Your task to perform on an android device: turn off airplane mode Image 0: 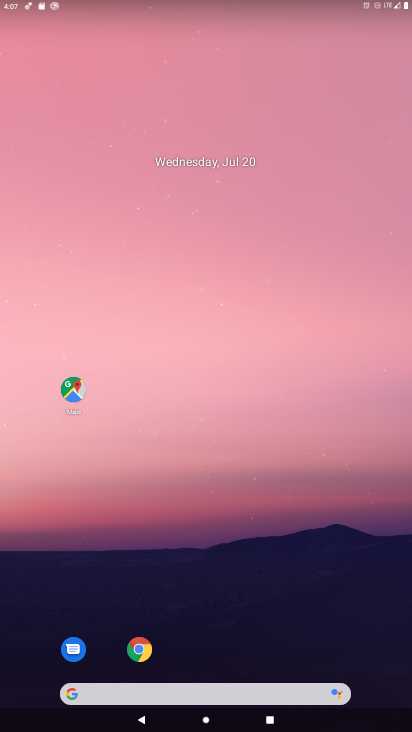
Step 0: drag from (222, 692) to (251, 10)
Your task to perform on an android device: turn off airplane mode Image 1: 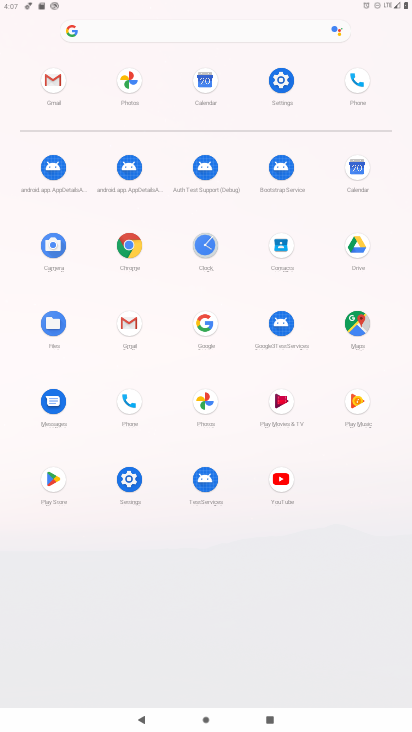
Step 1: click (280, 81)
Your task to perform on an android device: turn off airplane mode Image 2: 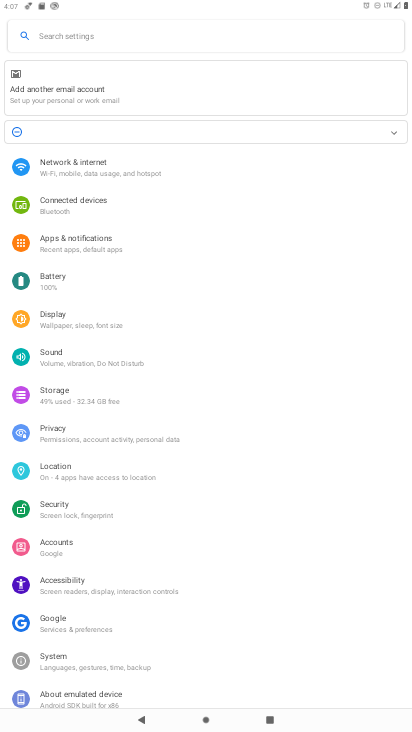
Step 2: click (73, 177)
Your task to perform on an android device: turn off airplane mode Image 3: 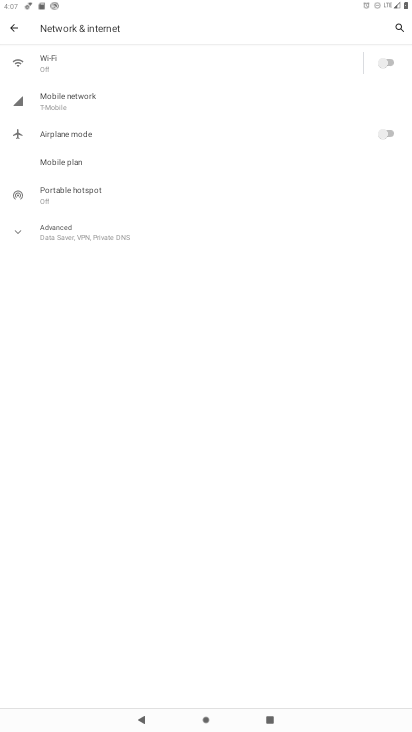
Step 3: task complete